Your task to perform on an android device: What's the weather going to be tomorrow? Image 0: 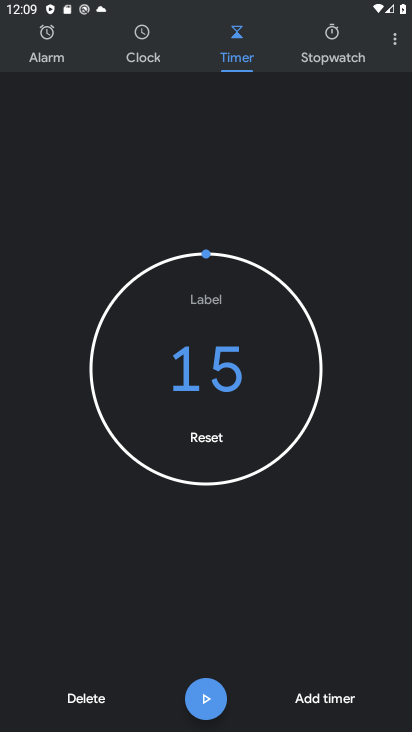
Step 0: press home button
Your task to perform on an android device: What's the weather going to be tomorrow? Image 1: 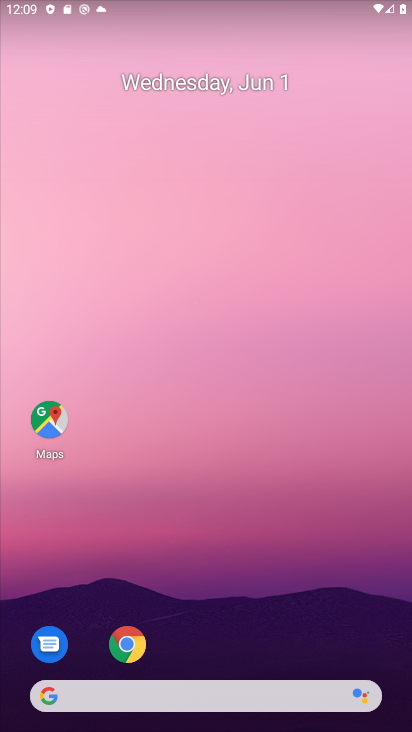
Step 1: drag from (366, 638) to (301, 204)
Your task to perform on an android device: What's the weather going to be tomorrow? Image 2: 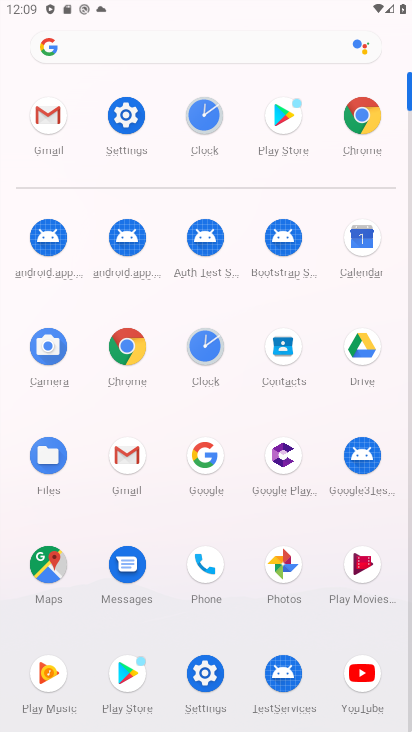
Step 2: click (137, 350)
Your task to perform on an android device: What's the weather going to be tomorrow? Image 3: 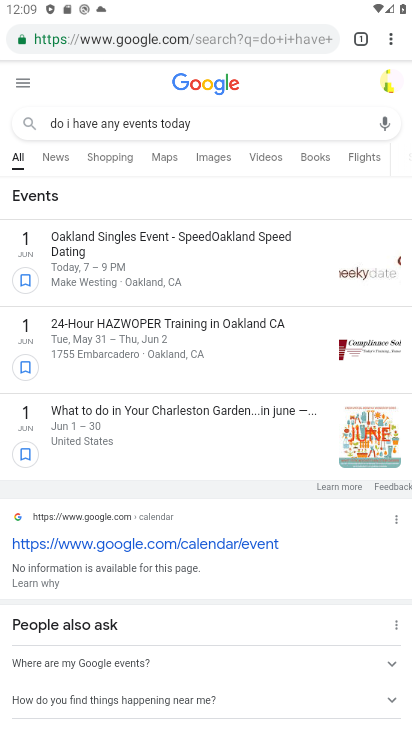
Step 3: click (238, 40)
Your task to perform on an android device: What's the weather going to be tomorrow? Image 4: 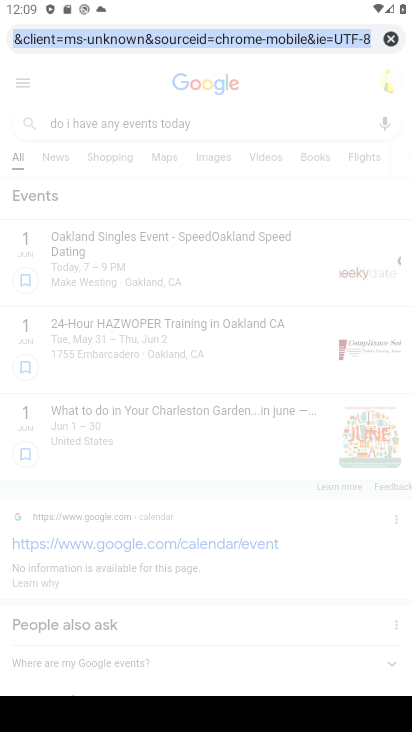
Step 4: click (393, 35)
Your task to perform on an android device: What's the weather going to be tomorrow? Image 5: 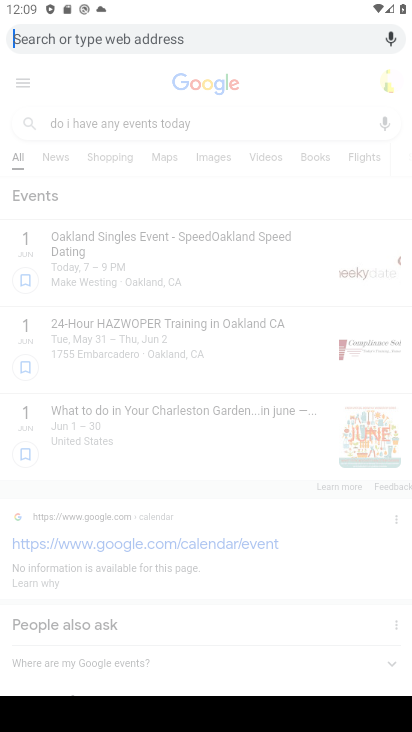
Step 5: type "what's the we"
Your task to perform on an android device: What's the weather going to be tomorrow? Image 6: 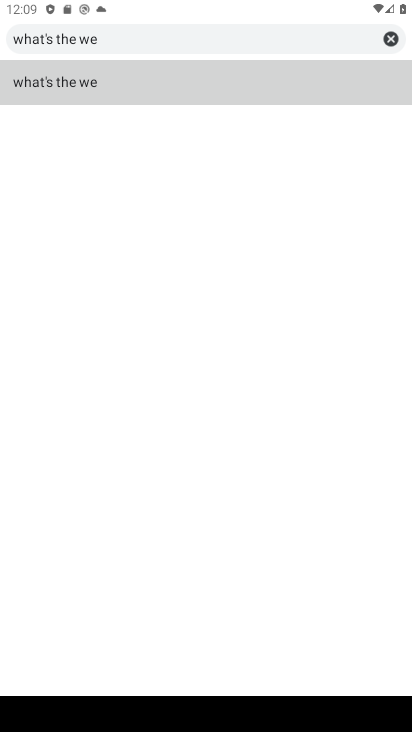
Step 6: click (396, 39)
Your task to perform on an android device: What's the weather going to be tomorrow? Image 7: 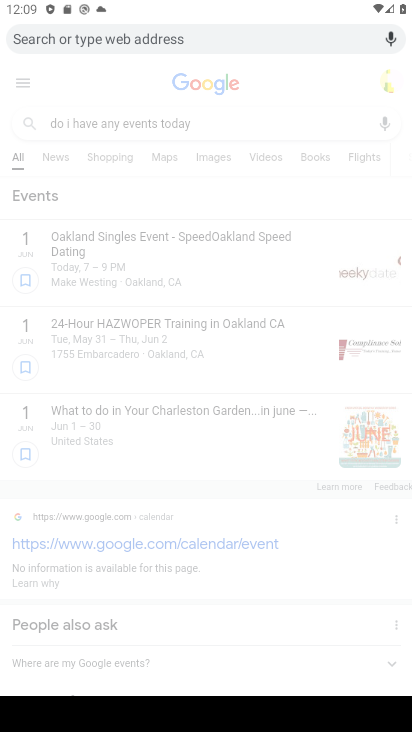
Step 7: type "what's the weather going to be tomorrow"
Your task to perform on an android device: What's the weather going to be tomorrow? Image 8: 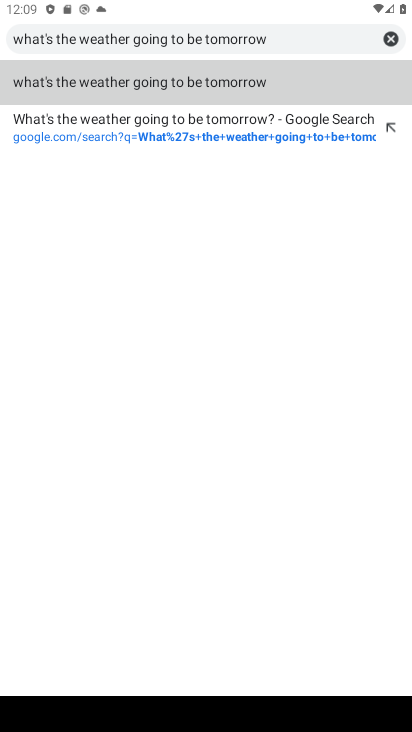
Step 8: click (259, 78)
Your task to perform on an android device: What's the weather going to be tomorrow? Image 9: 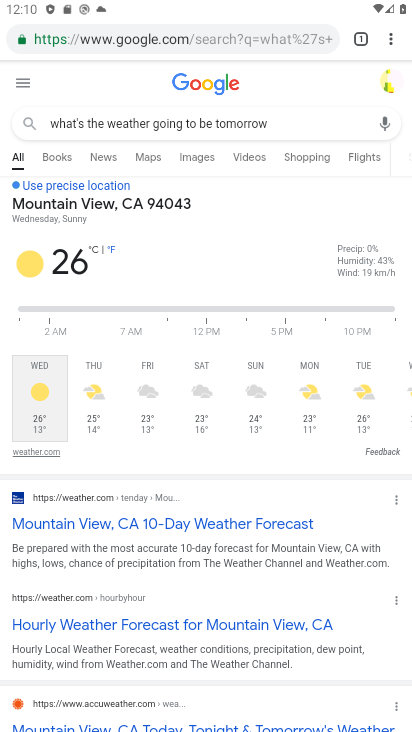
Step 9: task complete